Your task to perform on an android device: check the backup settings in the google photos Image 0: 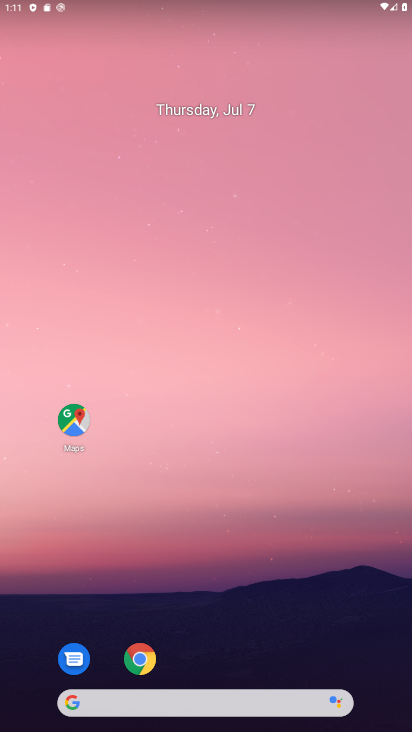
Step 0: drag from (224, 609) to (266, 11)
Your task to perform on an android device: check the backup settings in the google photos Image 1: 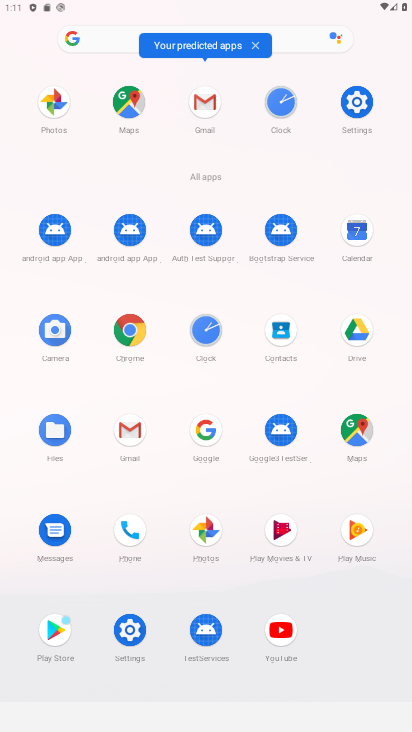
Step 1: click (201, 528)
Your task to perform on an android device: check the backup settings in the google photos Image 2: 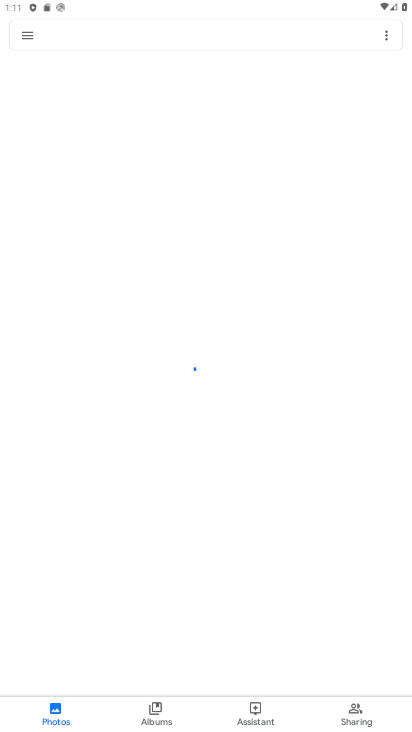
Step 2: click (27, 27)
Your task to perform on an android device: check the backup settings in the google photos Image 3: 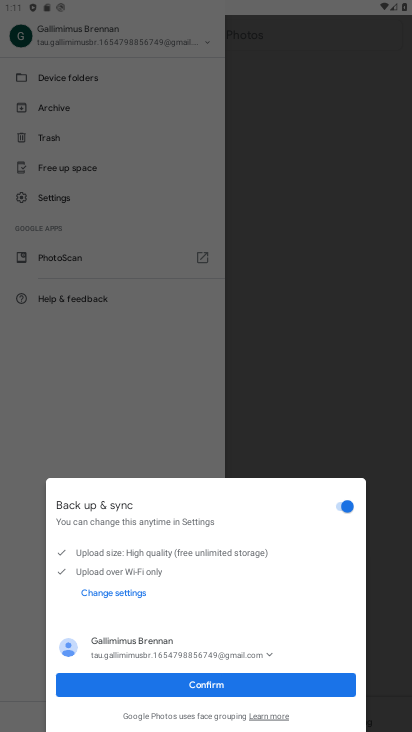
Step 3: click (217, 689)
Your task to perform on an android device: check the backup settings in the google photos Image 4: 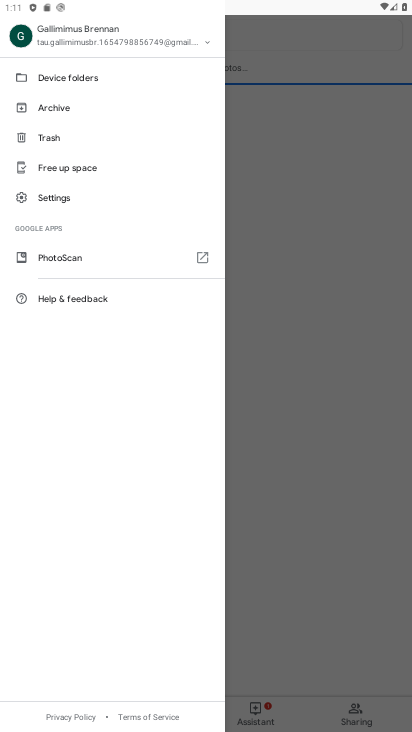
Step 4: click (62, 197)
Your task to perform on an android device: check the backup settings in the google photos Image 5: 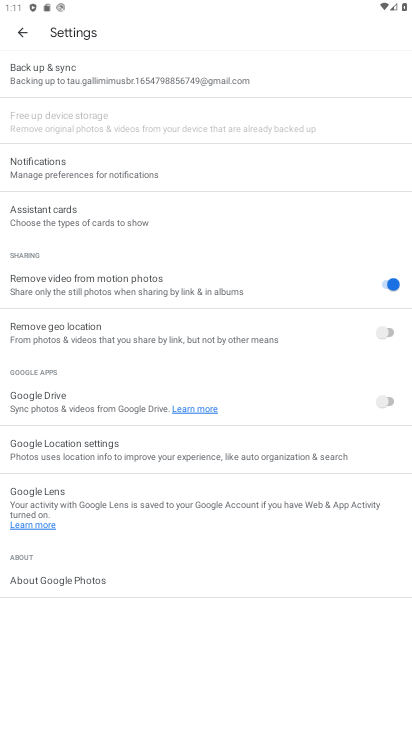
Step 5: click (58, 77)
Your task to perform on an android device: check the backup settings in the google photos Image 6: 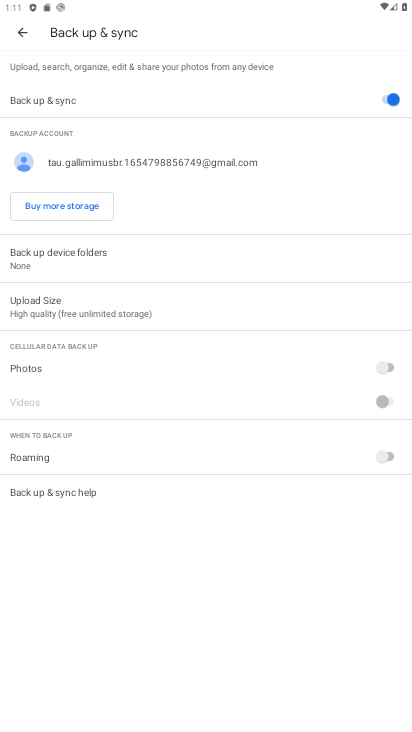
Step 6: task complete